Your task to perform on an android device: When is my next appointment? Image 0: 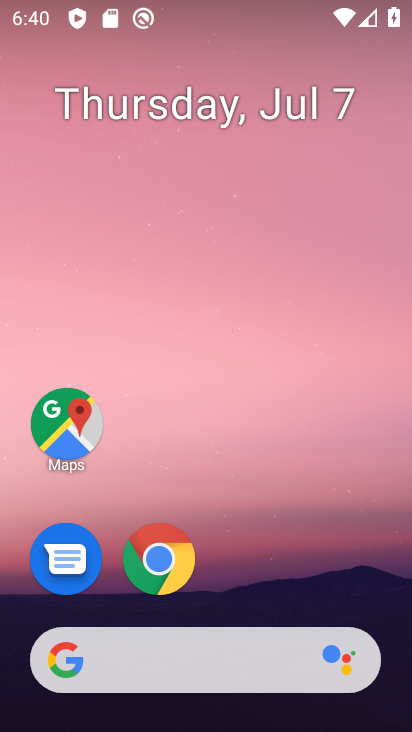
Step 0: drag from (278, 578) to (351, 139)
Your task to perform on an android device: When is my next appointment? Image 1: 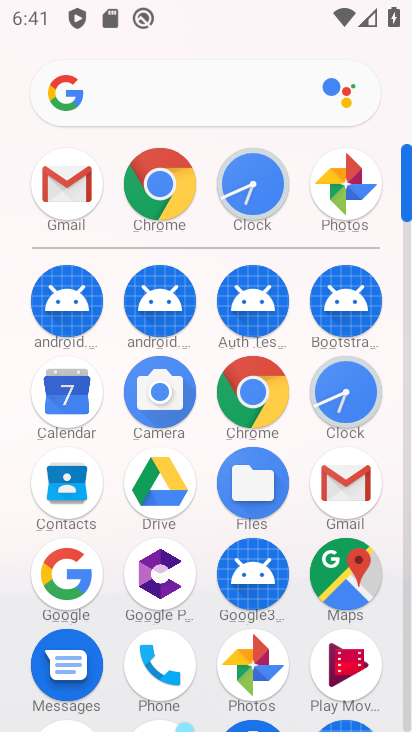
Step 1: click (70, 422)
Your task to perform on an android device: When is my next appointment? Image 2: 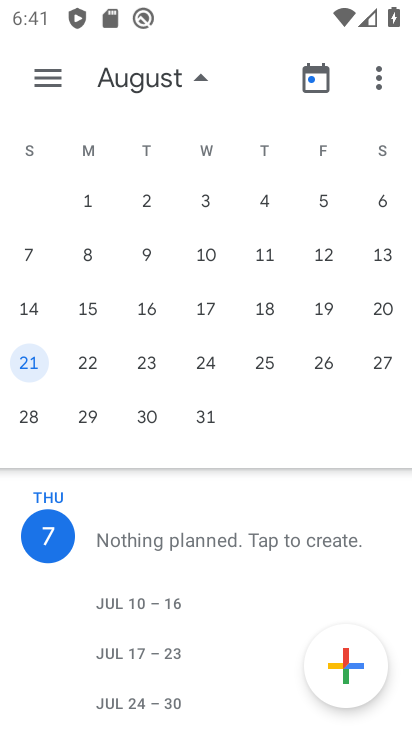
Step 2: click (43, 76)
Your task to perform on an android device: When is my next appointment? Image 3: 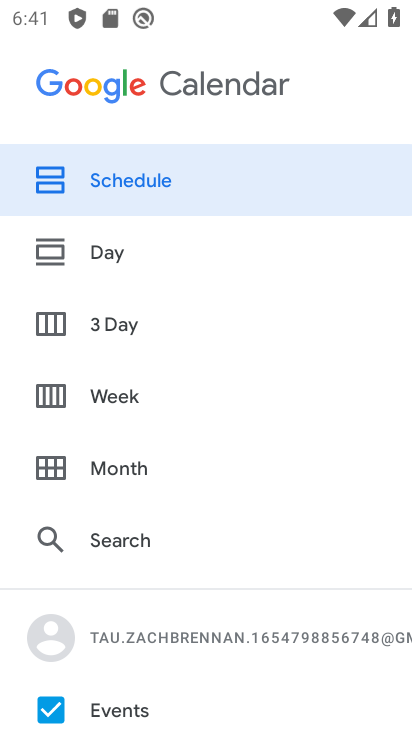
Step 3: drag from (154, 519) to (110, 199)
Your task to perform on an android device: When is my next appointment? Image 4: 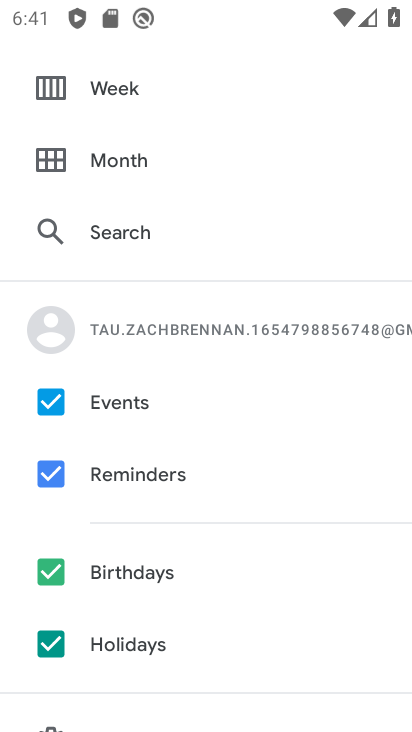
Step 4: click (138, 637)
Your task to perform on an android device: When is my next appointment? Image 5: 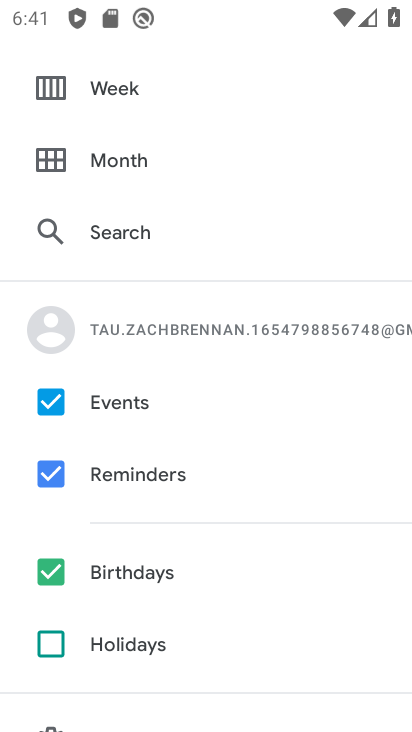
Step 5: click (134, 569)
Your task to perform on an android device: When is my next appointment? Image 6: 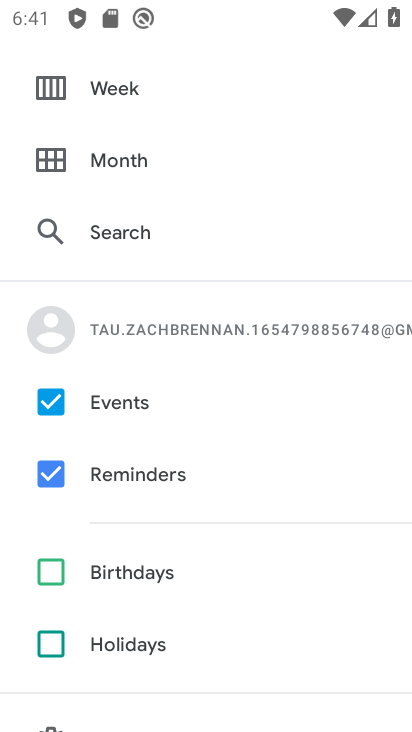
Step 6: task complete